Your task to perform on an android device: Go to wifi settings Image 0: 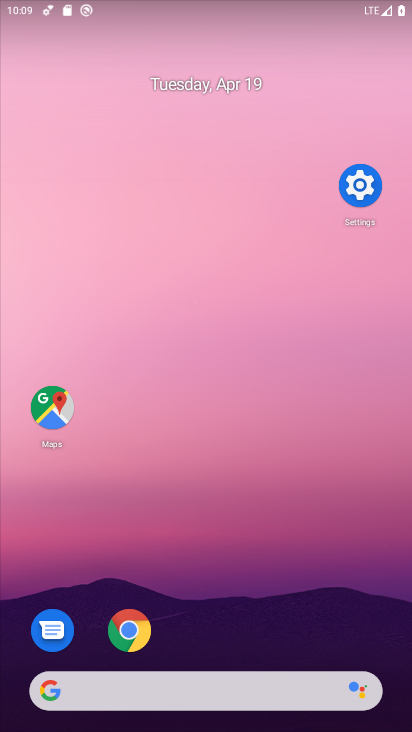
Step 0: drag from (259, 609) to (248, 5)
Your task to perform on an android device: Go to wifi settings Image 1: 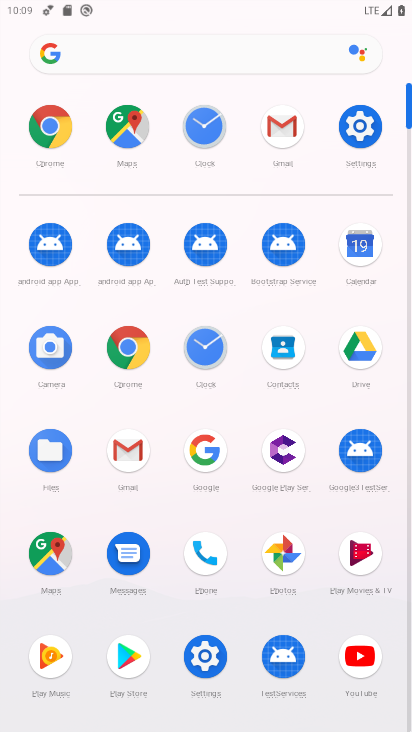
Step 1: click (354, 143)
Your task to perform on an android device: Go to wifi settings Image 2: 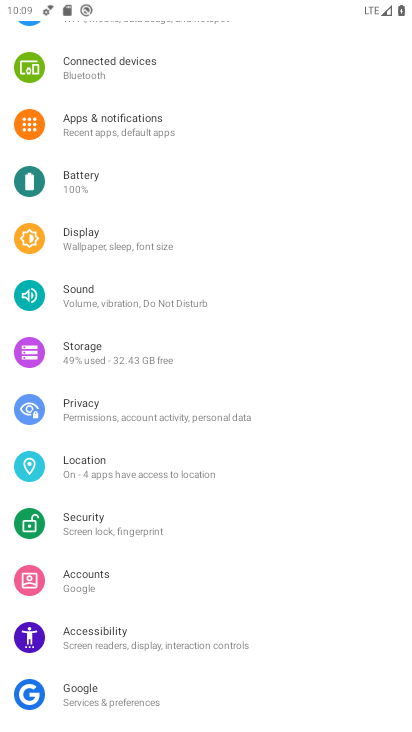
Step 2: drag from (183, 284) to (184, 546)
Your task to perform on an android device: Go to wifi settings Image 3: 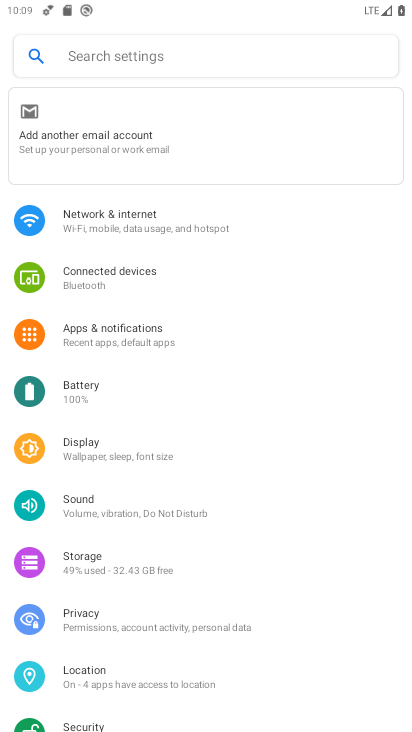
Step 3: click (189, 237)
Your task to perform on an android device: Go to wifi settings Image 4: 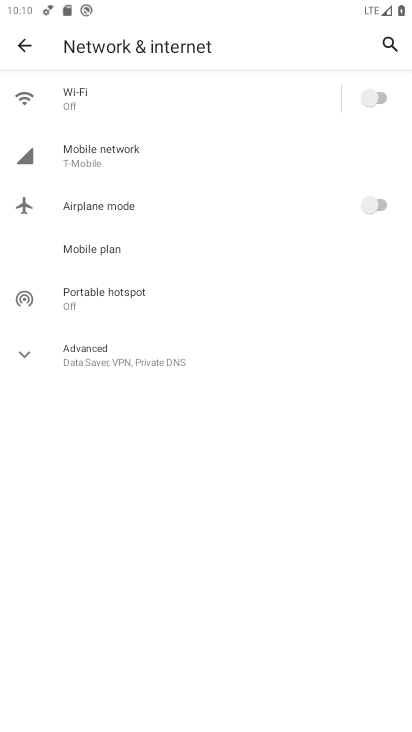
Step 4: click (105, 76)
Your task to perform on an android device: Go to wifi settings Image 5: 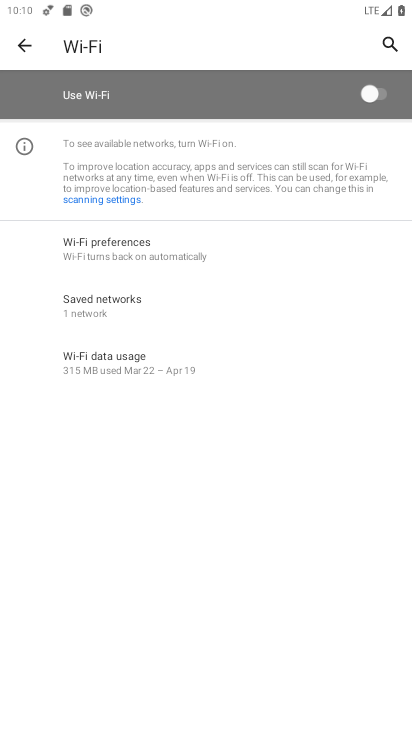
Step 5: task complete